Your task to perform on an android device: Open display settings Image 0: 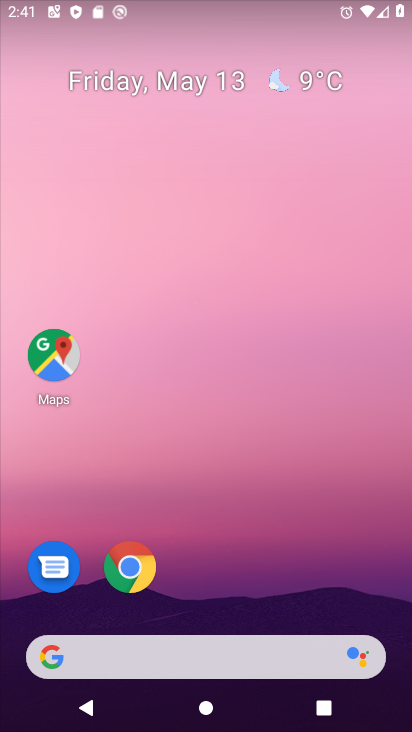
Step 0: drag from (183, 555) to (228, 59)
Your task to perform on an android device: Open display settings Image 1: 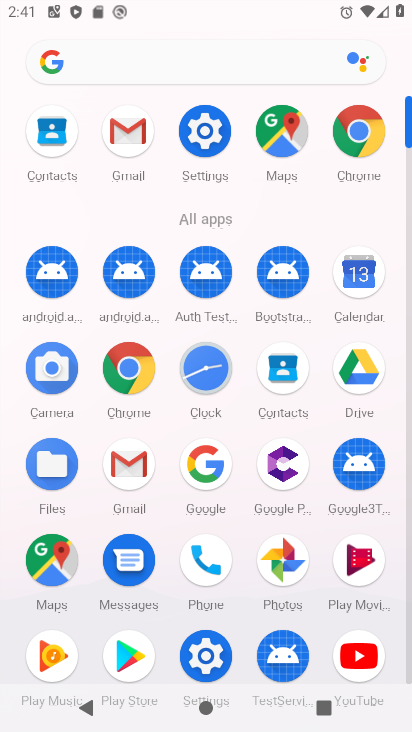
Step 1: click (215, 142)
Your task to perform on an android device: Open display settings Image 2: 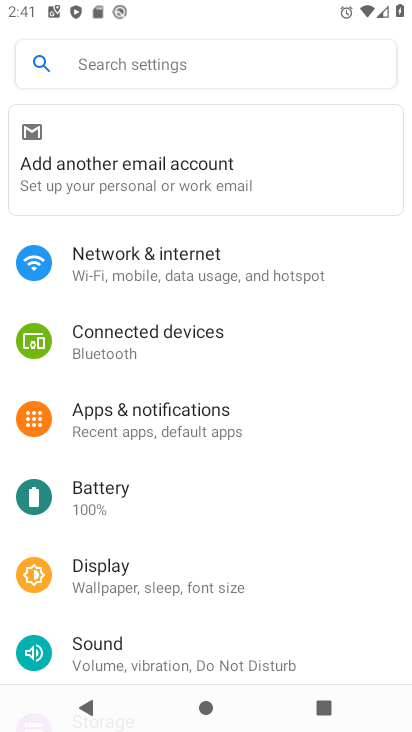
Step 2: click (126, 587)
Your task to perform on an android device: Open display settings Image 3: 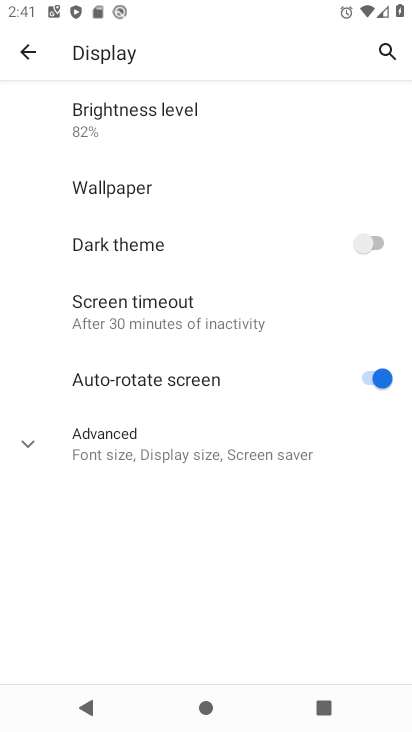
Step 3: task complete